Your task to perform on an android device: open chrome privacy settings Image 0: 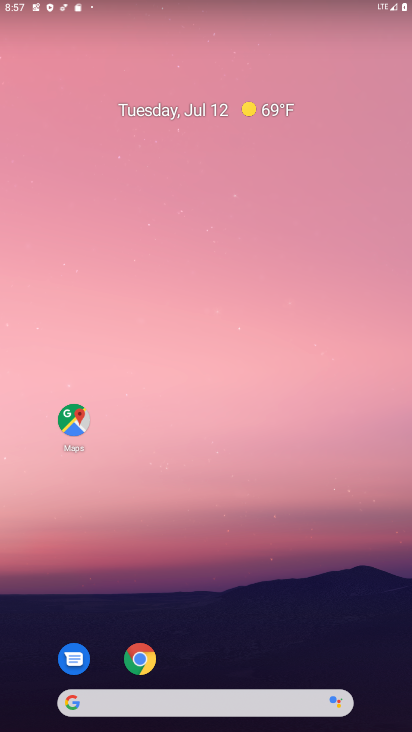
Step 0: click (141, 658)
Your task to perform on an android device: open chrome privacy settings Image 1: 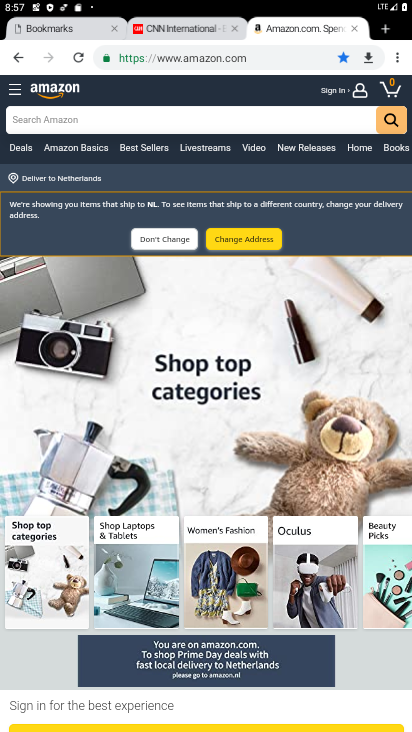
Step 1: click (397, 62)
Your task to perform on an android device: open chrome privacy settings Image 2: 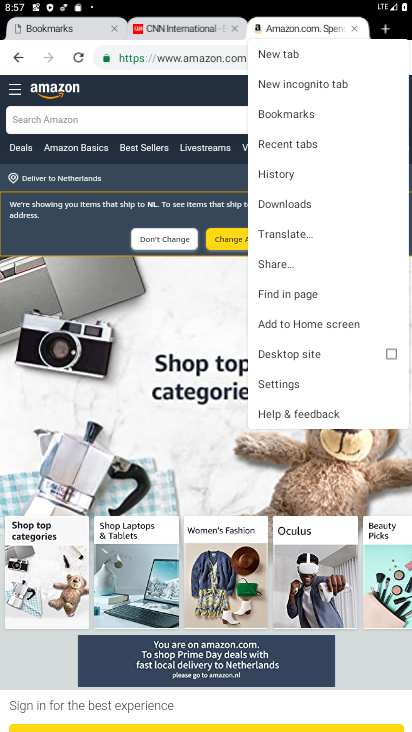
Step 2: click (268, 380)
Your task to perform on an android device: open chrome privacy settings Image 3: 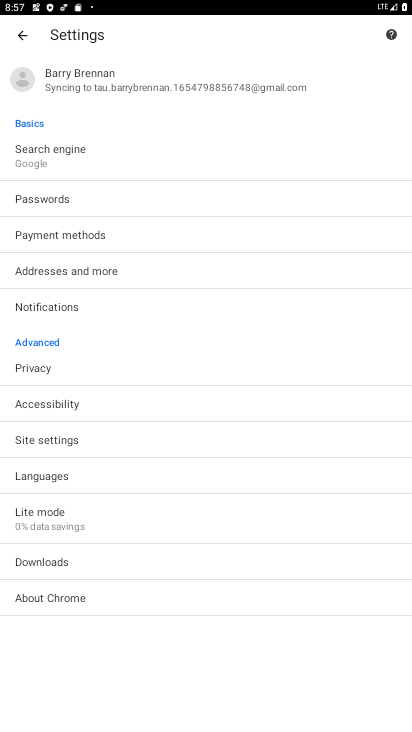
Step 3: click (24, 368)
Your task to perform on an android device: open chrome privacy settings Image 4: 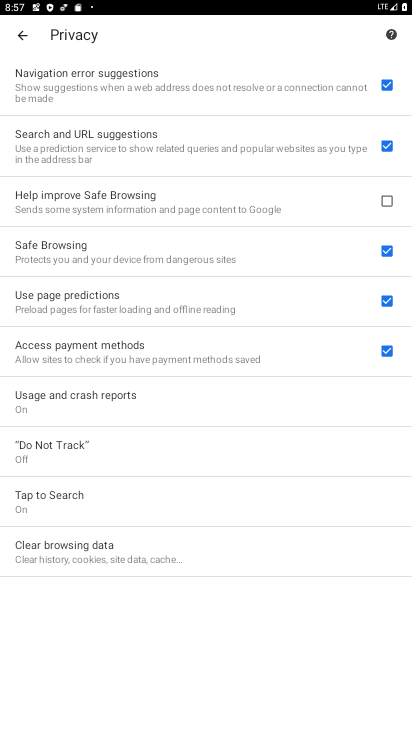
Step 4: task complete